Your task to perform on an android device: Open Android settings Image 0: 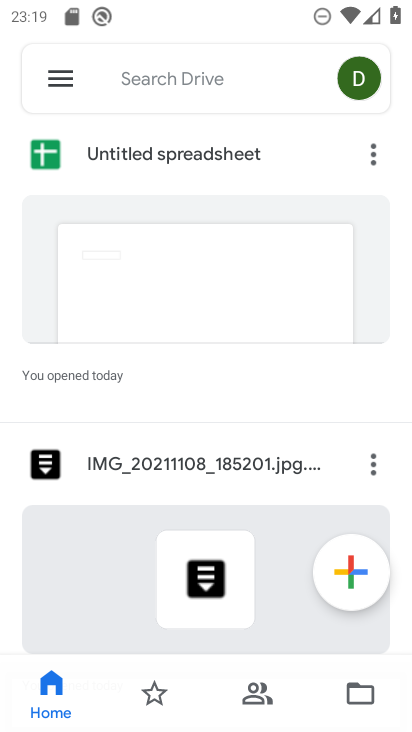
Step 0: press home button
Your task to perform on an android device: Open Android settings Image 1: 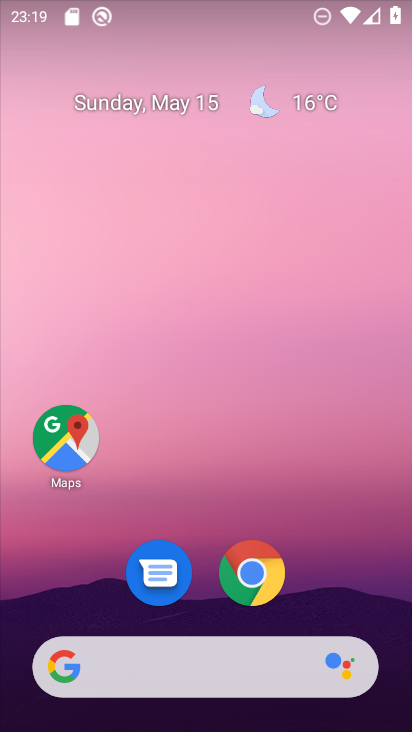
Step 1: drag from (356, 583) to (338, 49)
Your task to perform on an android device: Open Android settings Image 2: 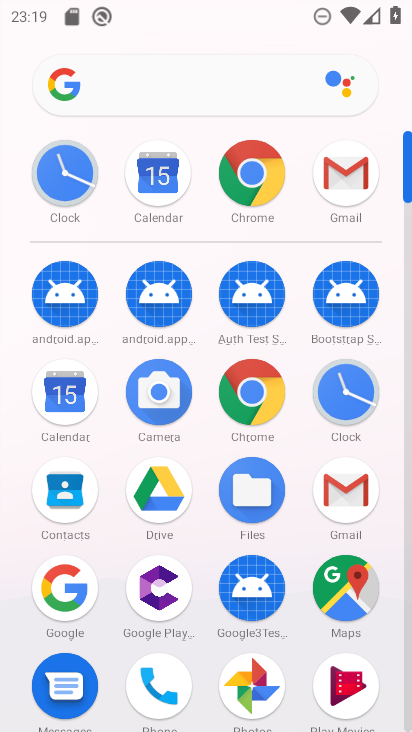
Step 2: click (405, 729)
Your task to perform on an android device: Open Android settings Image 3: 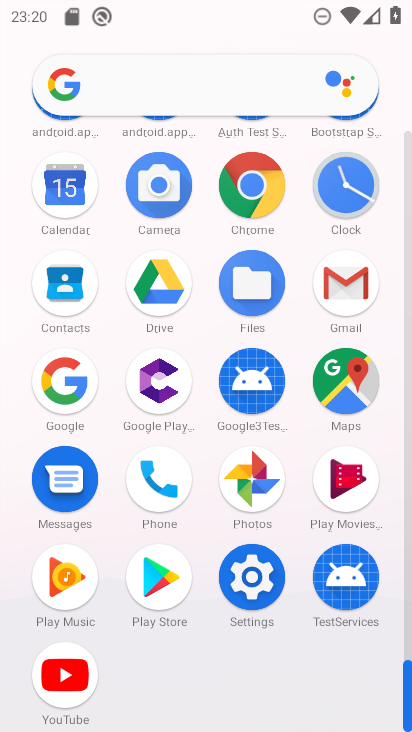
Step 3: click (246, 568)
Your task to perform on an android device: Open Android settings Image 4: 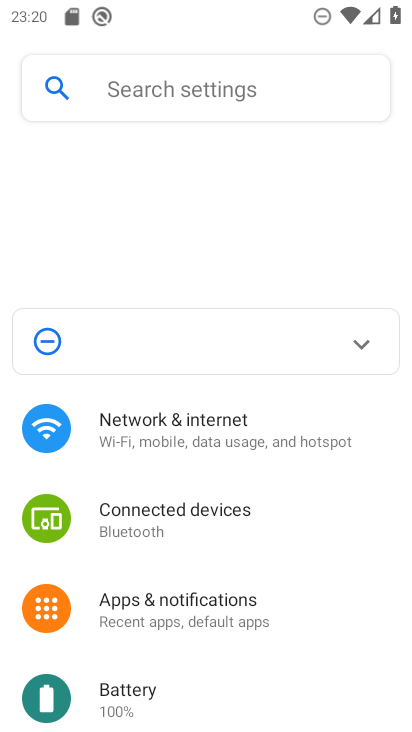
Step 4: drag from (246, 568) to (259, 7)
Your task to perform on an android device: Open Android settings Image 5: 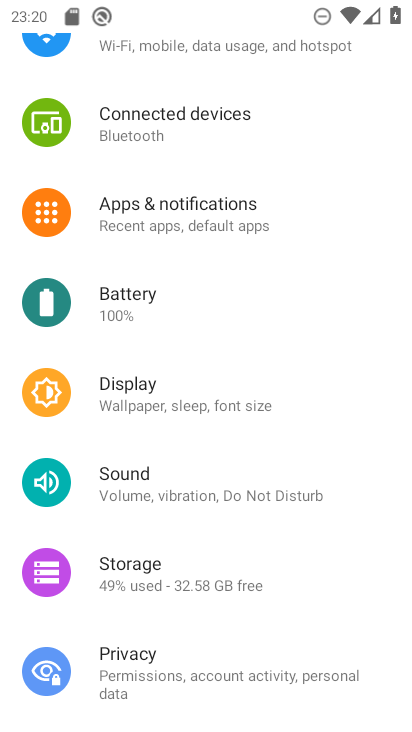
Step 5: drag from (287, 606) to (234, 220)
Your task to perform on an android device: Open Android settings Image 6: 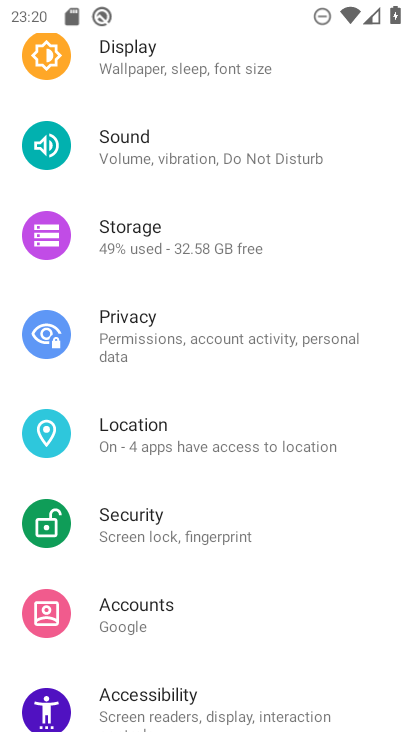
Step 6: drag from (251, 554) to (244, 235)
Your task to perform on an android device: Open Android settings Image 7: 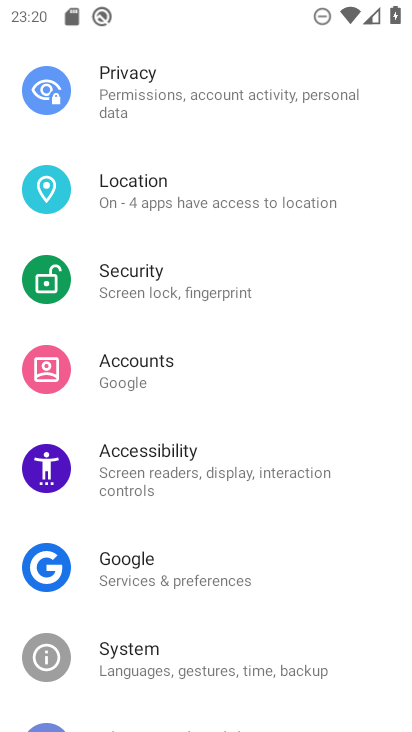
Step 7: drag from (201, 628) to (301, 147)
Your task to perform on an android device: Open Android settings Image 8: 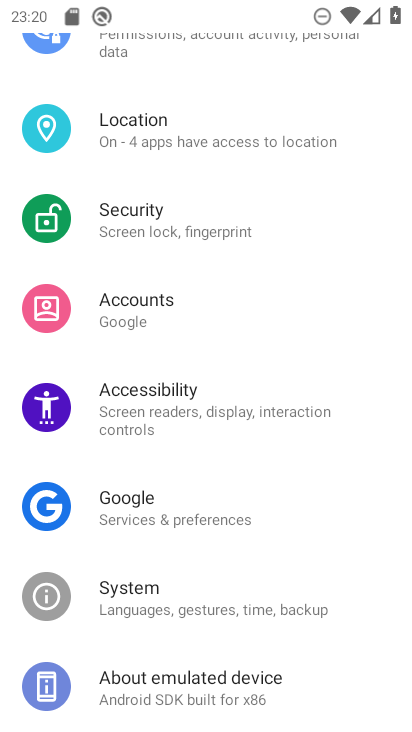
Step 8: click (194, 673)
Your task to perform on an android device: Open Android settings Image 9: 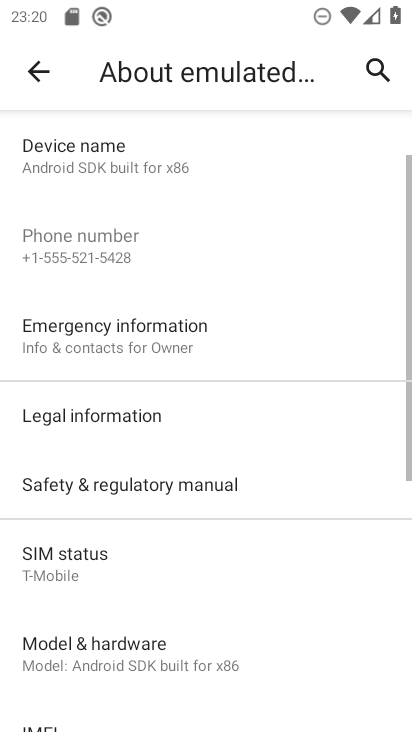
Step 9: drag from (206, 601) to (257, 183)
Your task to perform on an android device: Open Android settings Image 10: 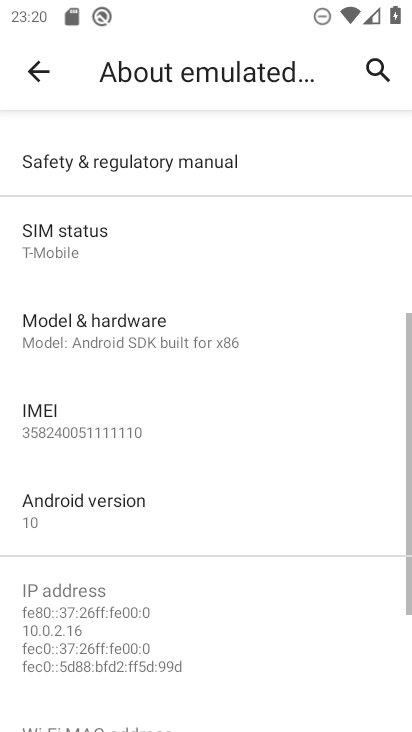
Step 10: click (141, 490)
Your task to perform on an android device: Open Android settings Image 11: 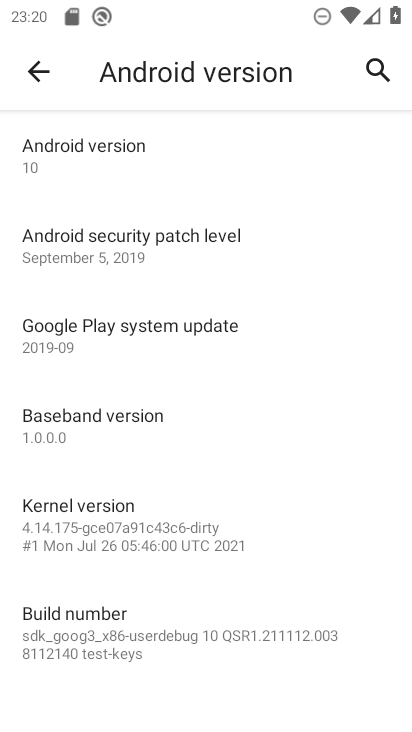
Step 11: task complete